Your task to perform on an android device: open app "Clock" Image 0: 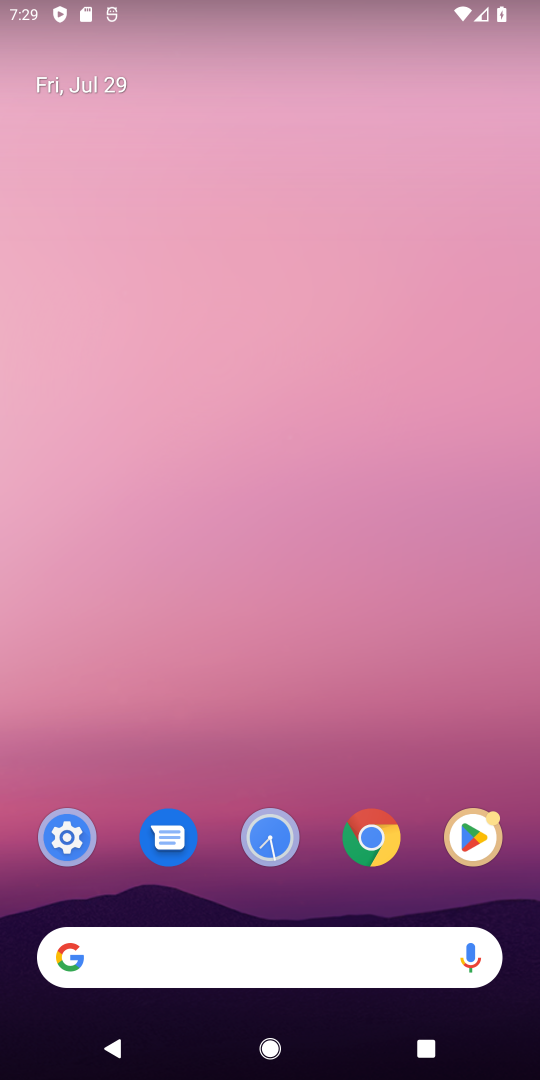
Step 0: click (467, 831)
Your task to perform on an android device: open app "Clock" Image 1: 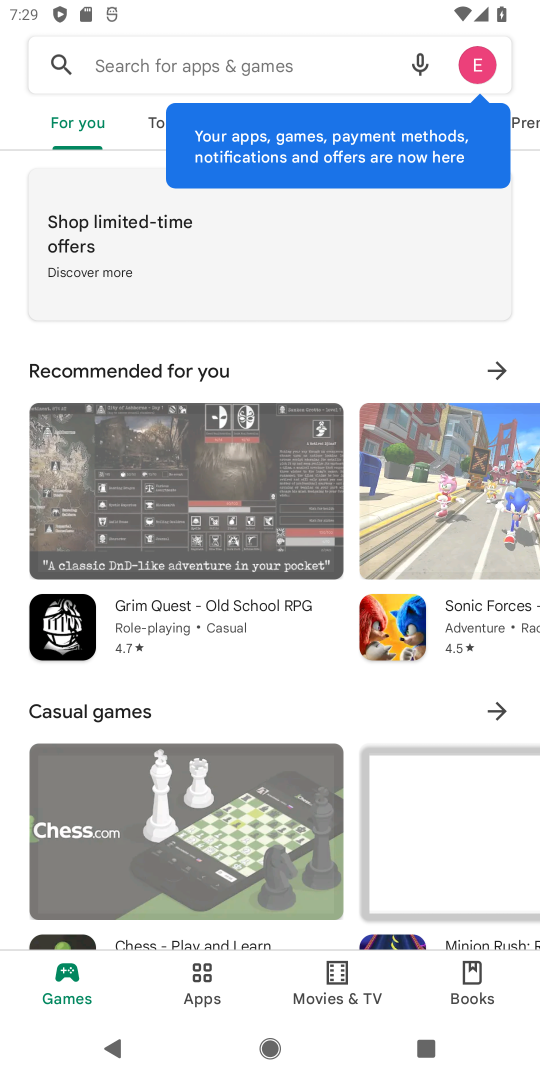
Step 1: click (291, 56)
Your task to perform on an android device: open app "Clock" Image 2: 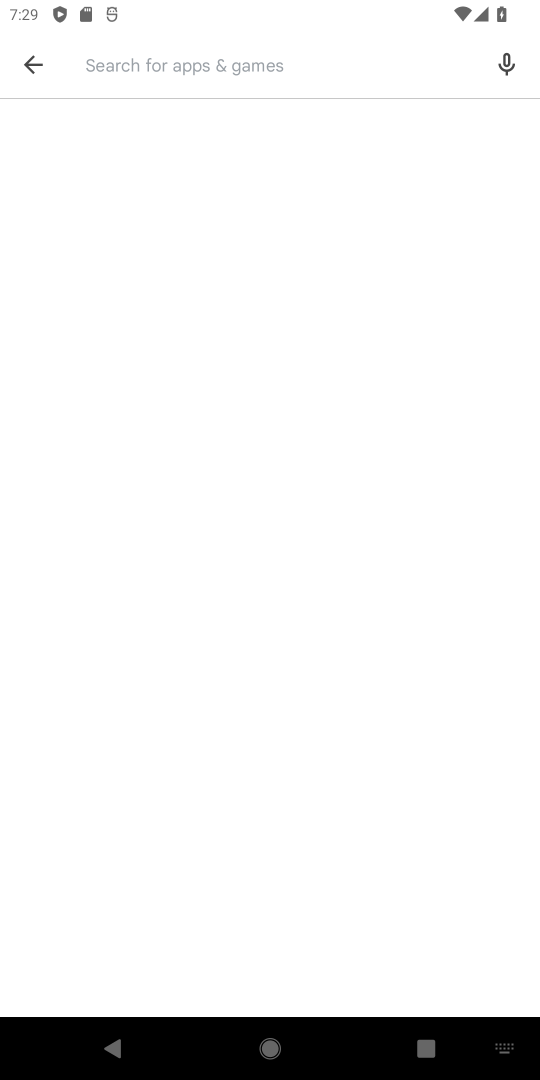
Step 2: type "clock"
Your task to perform on an android device: open app "Clock" Image 3: 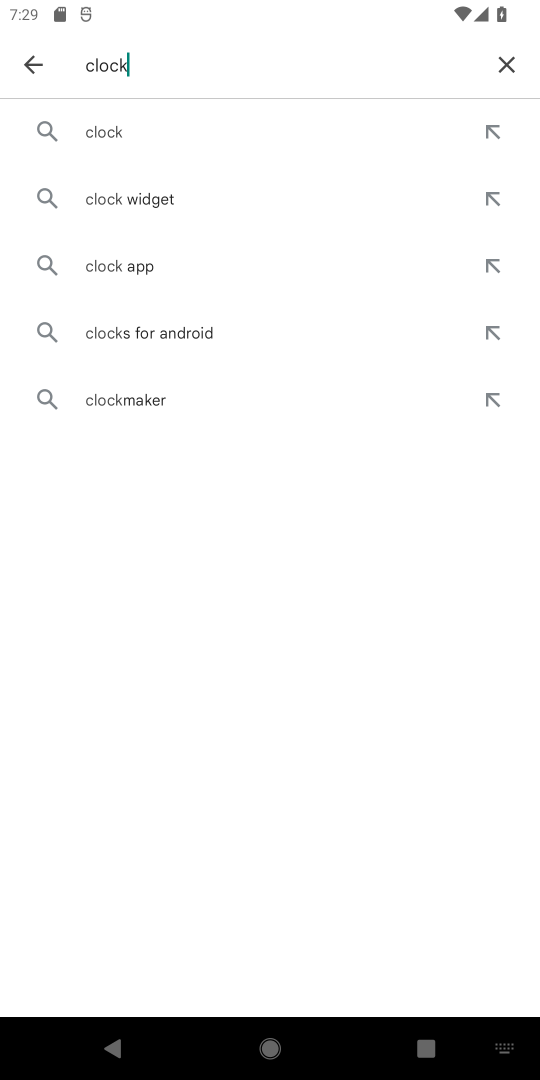
Step 3: click (176, 132)
Your task to perform on an android device: open app "Clock" Image 4: 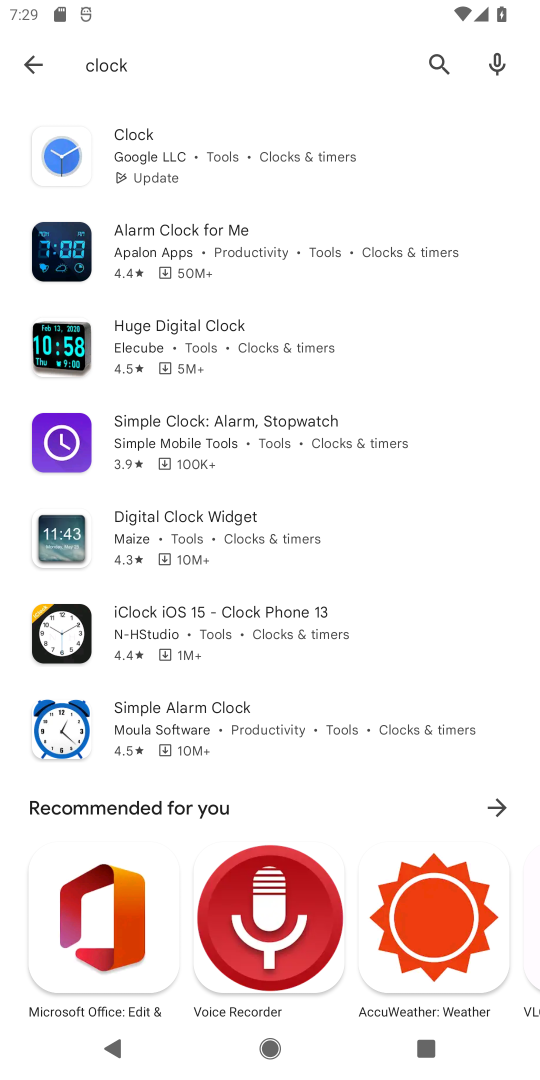
Step 4: click (178, 132)
Your task to perform on an android device: open app "Clock" Image 5: 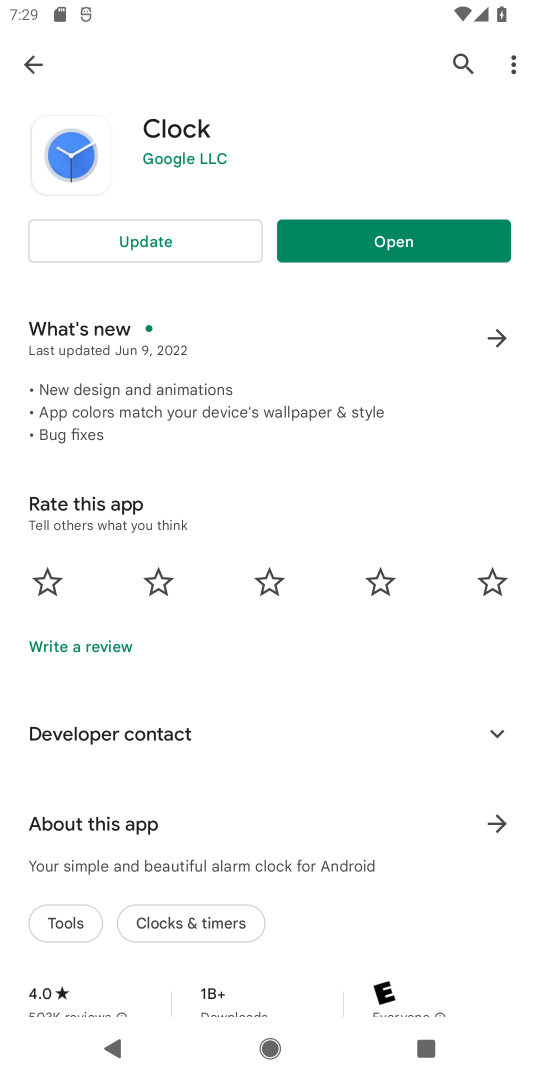
Step 5: click (320, 237)
Your task to perform on an android device: open app "Clock" Image 6: 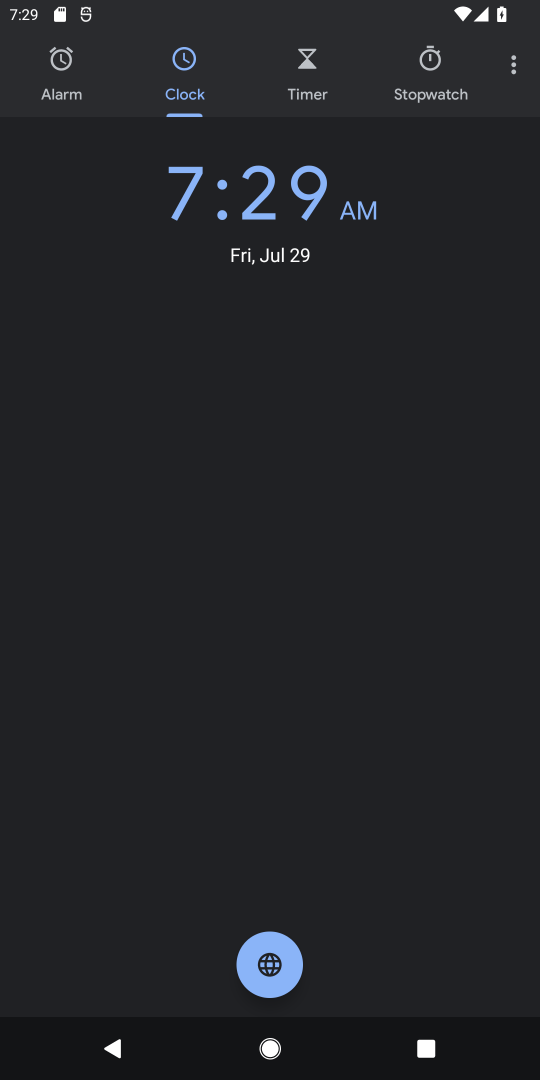
Step 6: task complete